Your task to perform on an android device: Open the camera Image 0: 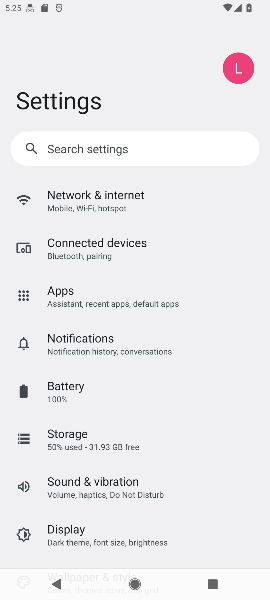
Step 0: press home button
Your task to perform on an android device: Open the camera Image 1: 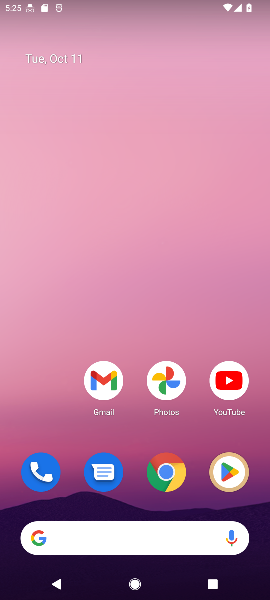
Step 1: drag from (128, 427) to (82, 79)
Your task to perform on an android device: Open the camera Image 2: 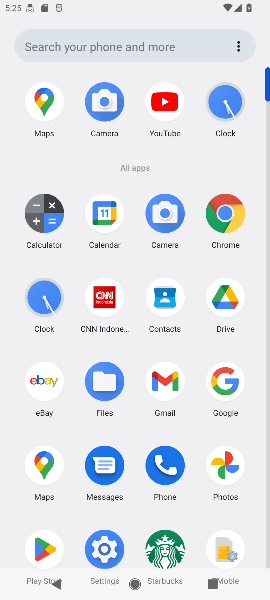
Step 2: click (94, 88)
Your task to perform on an android device: Open the camera Image 3: 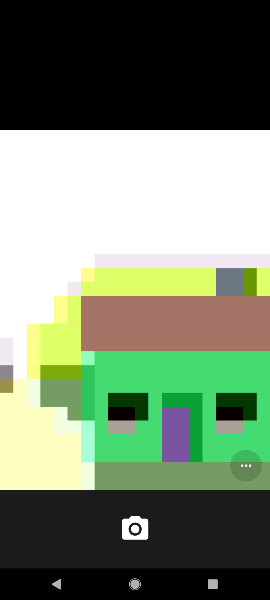
Step 3: task complete